Your task to perform on an android device: When is my next appointment? Image 0: 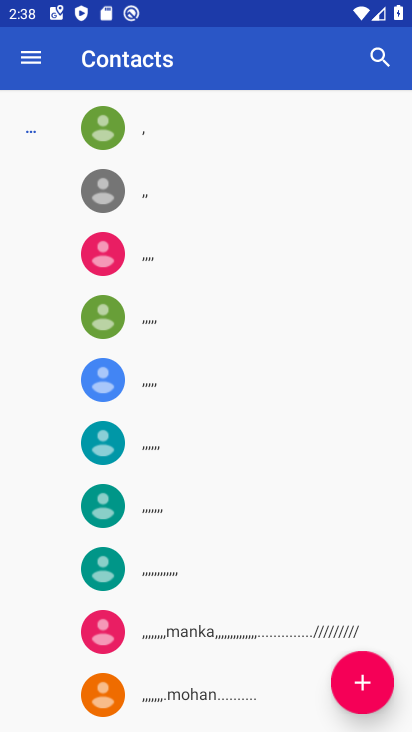
Step 0: press home button
Your task to perform on an android device: When is my next appointment? Image 1: 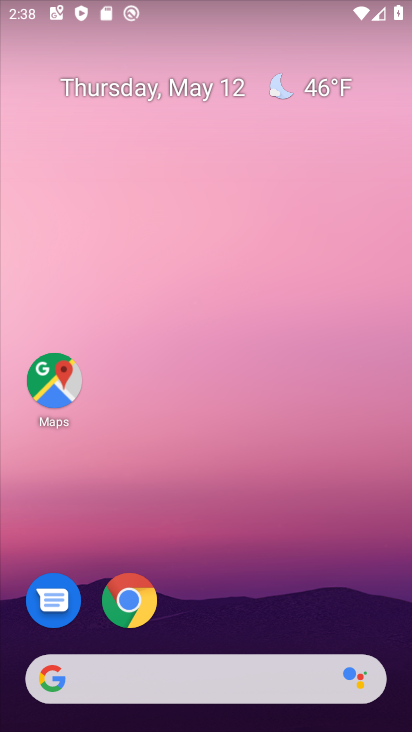
Step 1: drag from (208, 474) to (209, 20)
Your task to perform on an android device: When is my next appointment? Image 2: 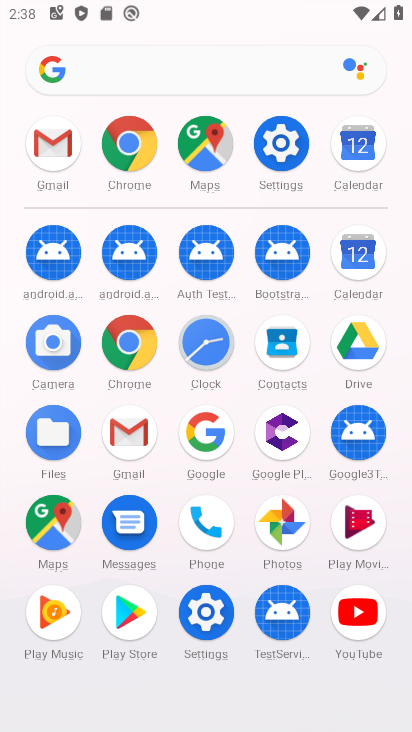
Step 2: click (358, 258)
Your task to perform on an android device: When is my next appointment? Image 3: 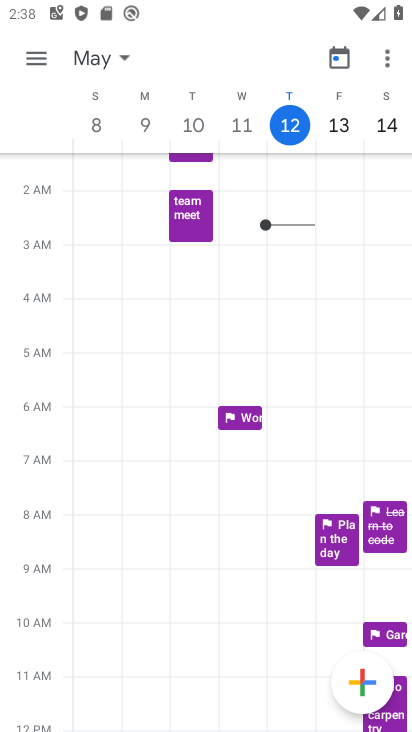
Step 3: click (21, 51)
Your task to perform on an android device: When is my next appointment? Image 4: 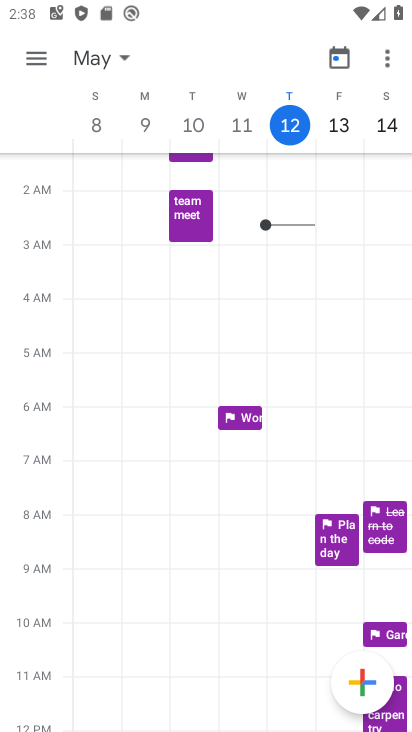
Step 4: click (17, 53)
Your task to perform on an android device: When is my next appointment? Image 5: 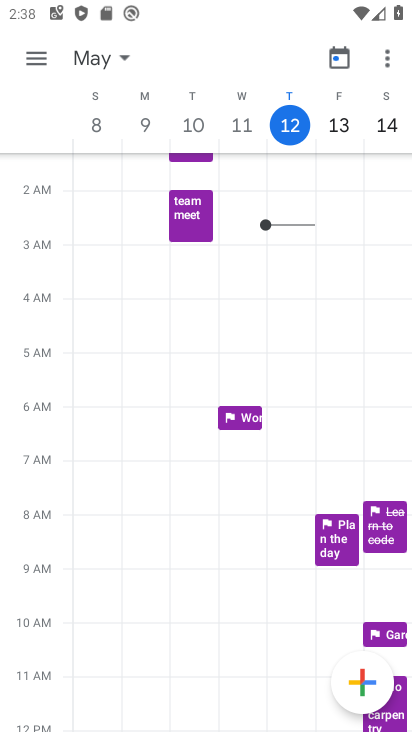
Step 5: click (56, 64)
Your task to perform on an android device: When is my next appointment? Image 6: 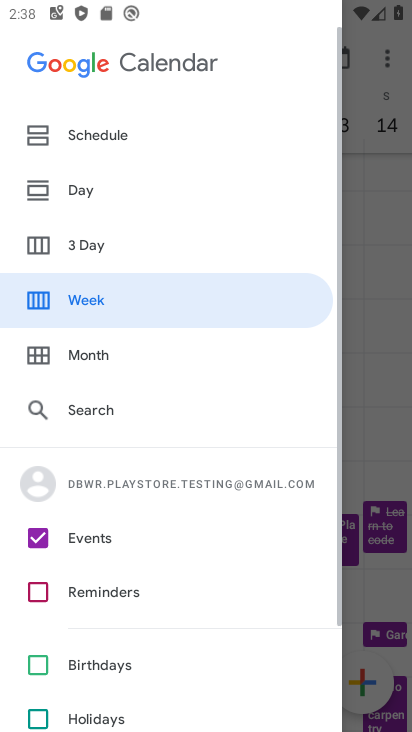
Step 6: click (110, 134)
Your task to perform on an android device: When is my next appointment? Image 7: 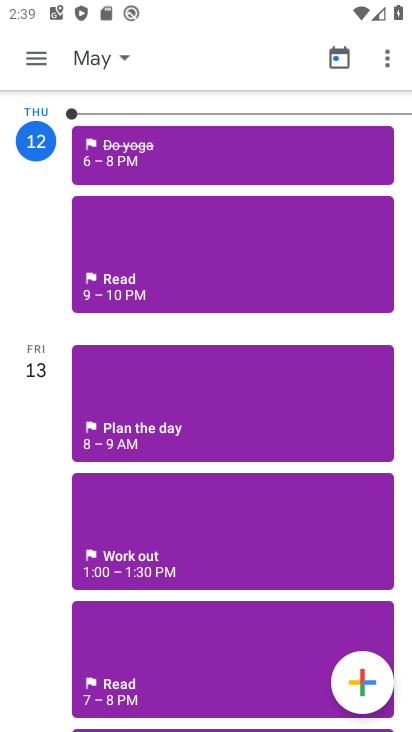
Step 7: task complete